Your task to perform on an android device: Show me productivity apps on the Play Store Image 0: 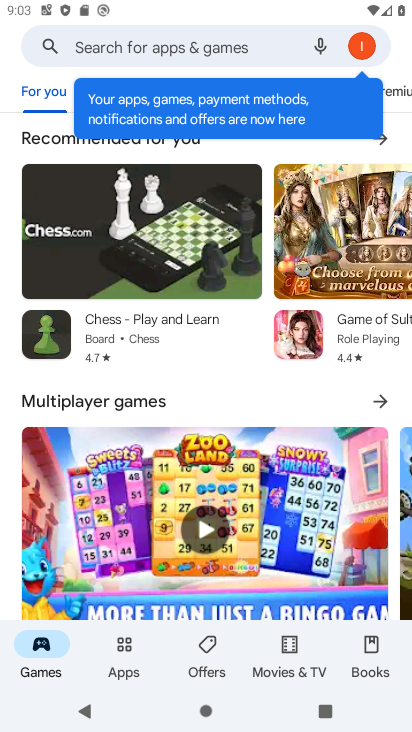
Step 0: press home button
Your task to perform on an android device: Show me productivity apps on the Play Store Image 1: 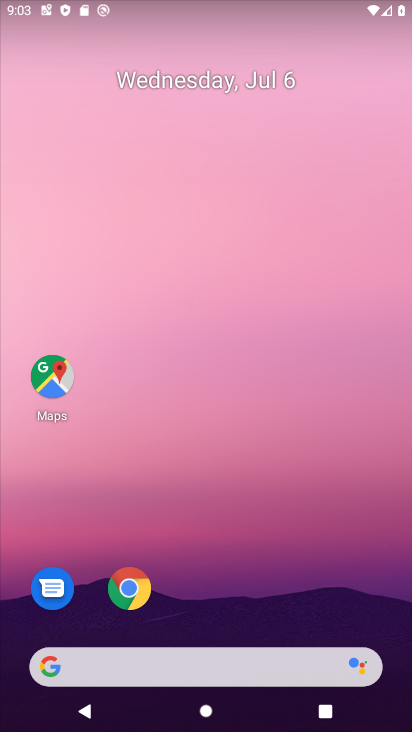
Step 1: drag from (183, 669) to (297, 115)
Your task to perform on an android device: Show me productivity apps on the Play Store Image 2: 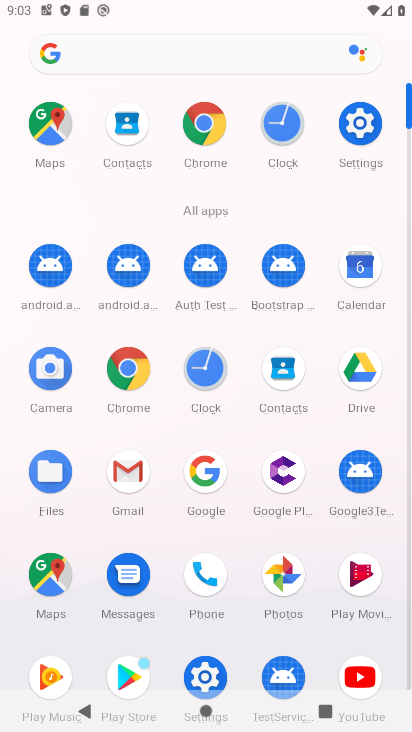
Step 2: click (133, 673)
Your task to perform on an android device: Show me productivity apps on the Play Store Image 3: 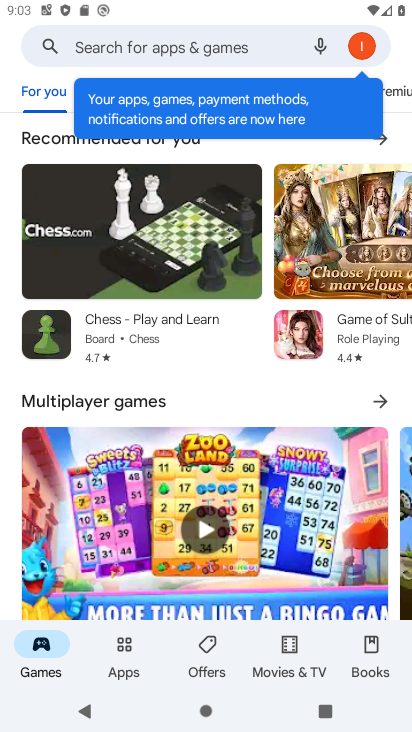
Step 3: click (119, 657)
Your task to perform on an android device: Show me productivity apps on the Play Store Image 4: 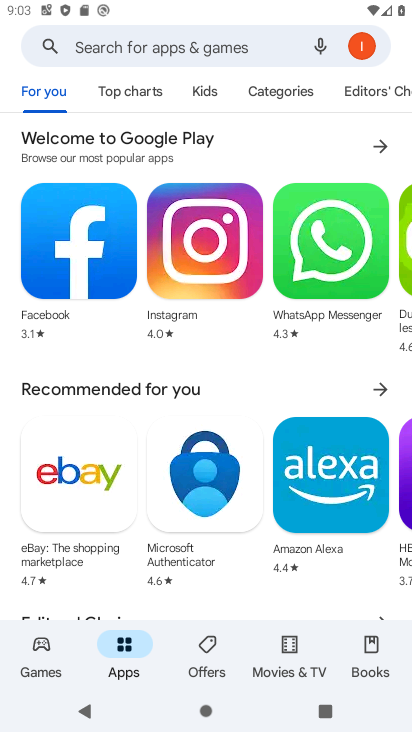
Step 4: drag from (364, 89) to (73, 106)
Your task to perform on an android device: Show me productivity apps on the Play Store Image 5: 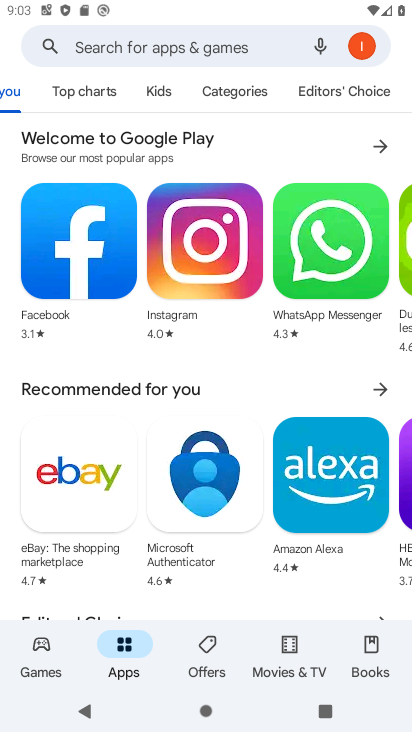
Step 5: click (236, 95)
Your task to perform on an android device: Show me productivity apps on the Play Store Image 6: 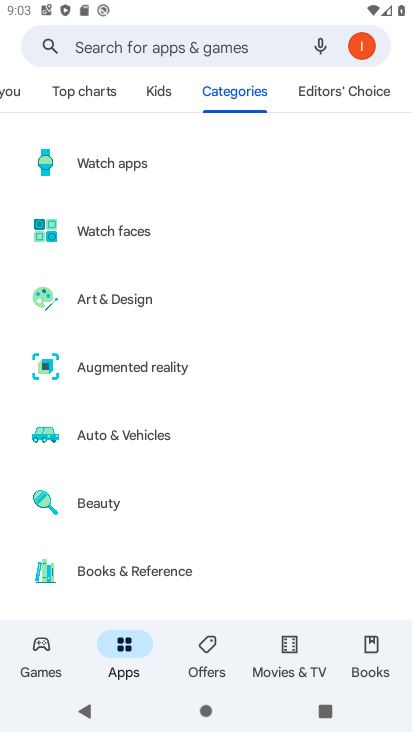
Step 6: drag from (198, 573) to (327, 59)
Your task to perform on an android device: Show me productivity apps on the Play Store Image 7: 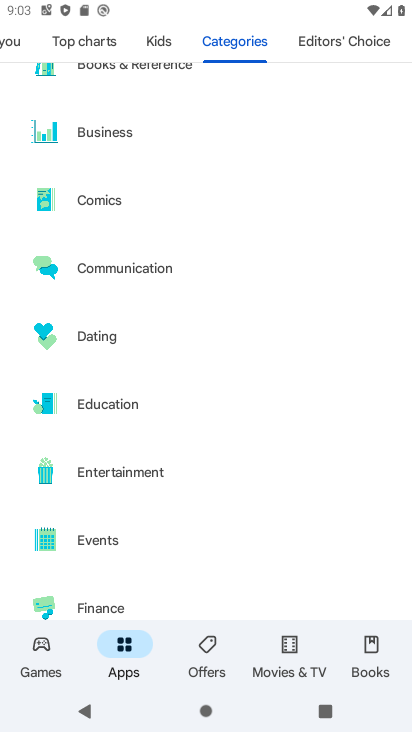
Step 7: drag from (205, 588) to (364, 0)
Your task to perform on an android device: Show me productivity apps on the Play Store Image 8: 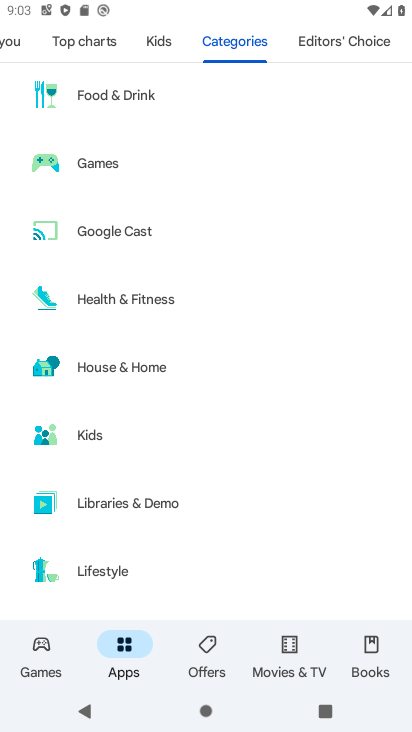
Step 8: drag from (188, 535) to (307, 59)
Your task to perform on an android device: Show me productivity apps on the Play Store Image 9: 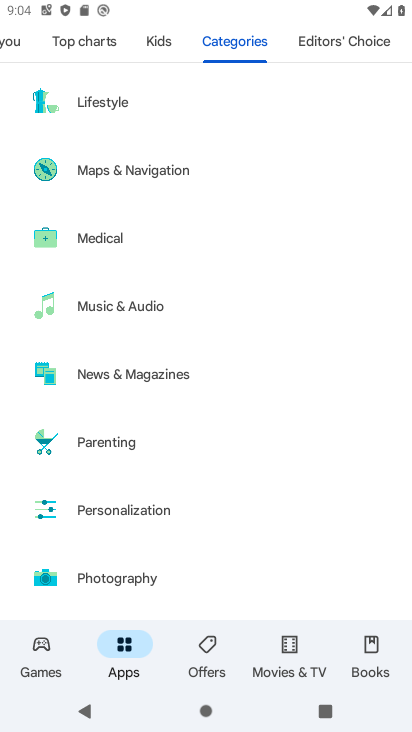
Step 9: drag from (211, 546) to (276, 297)
Your task to perform on an android device: Show me productivity apps on the Play Store Image 10: 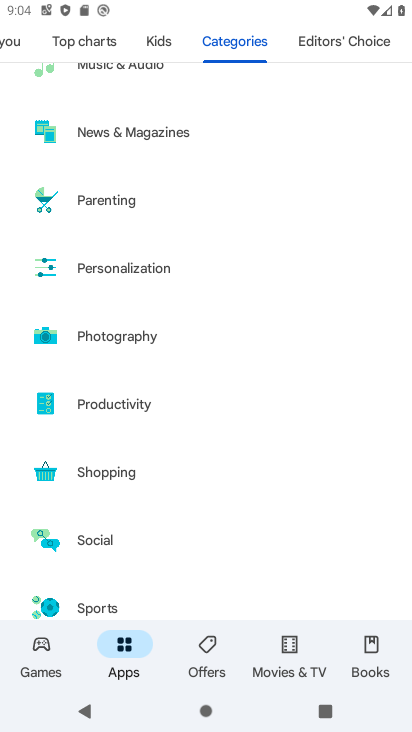
Step 10: click (140, 407)
Your task to perform on an android device: Show me productivity apps on the Play Store Image 11: 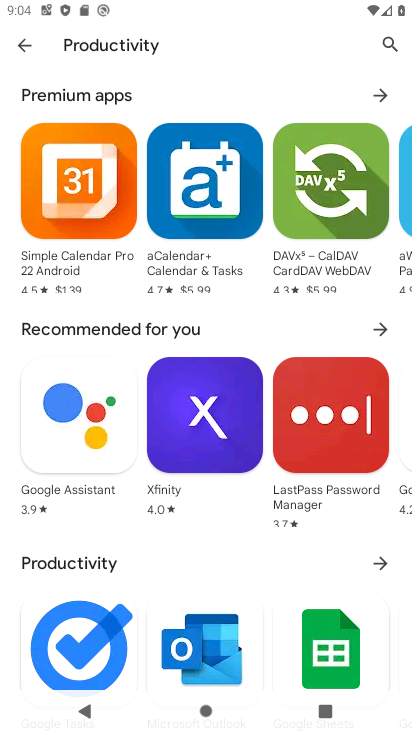
Step 11: task complete